Your task to perform on an android device: read, delete, or share a saved page in the chrome app Image 0: 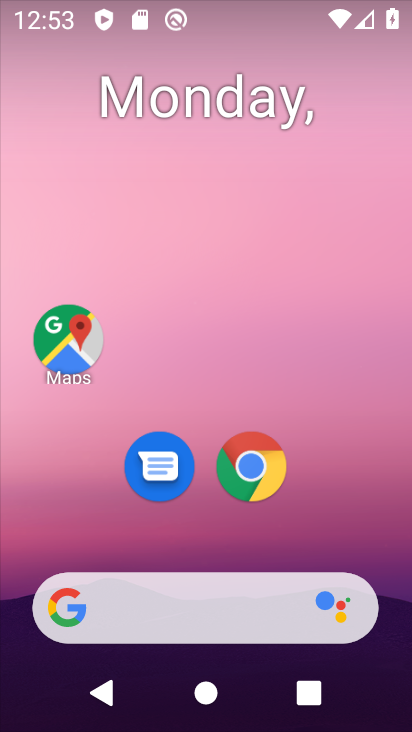
Step 0: drag from (212, 569) to (240, 0)
Your task to perform on an android device: read, delete, or share a saved page in the chrome app Image 1: 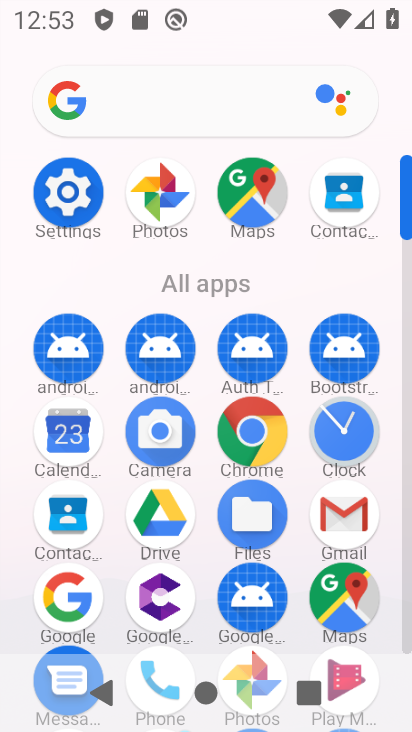
Step 1: click (257, 437)
Your task to perform on an android device: read, delete, or share a saved page in the chrome app Image 2: 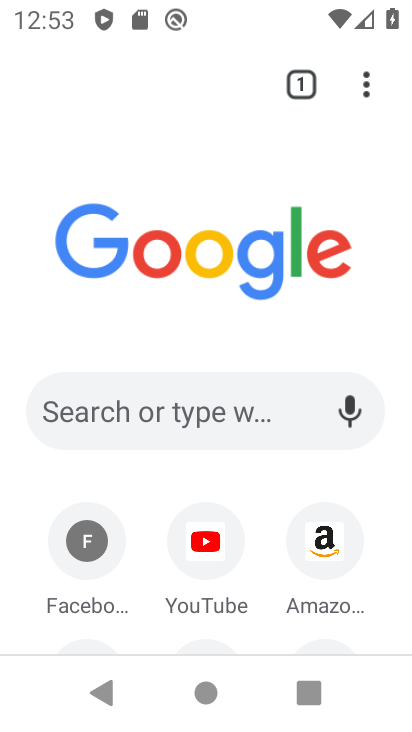
Step 2: click (365, 77)
Your task to perform on an android device: read, delete, or share a saved page in the chrome app Image 3: 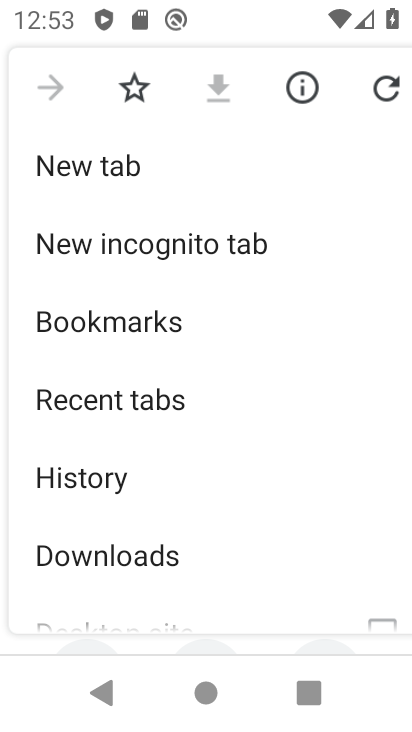
Step 3: click (123, 331)
Your task to perform on an android device: read, delete, or share a saved page in the chrome app Image 4: 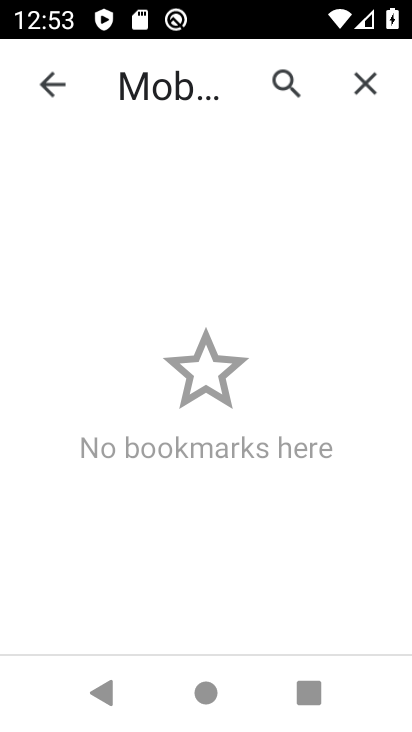
Step 4: task complete